Your task to perform on an android device: Show me the alarms in the clock app Image 0: 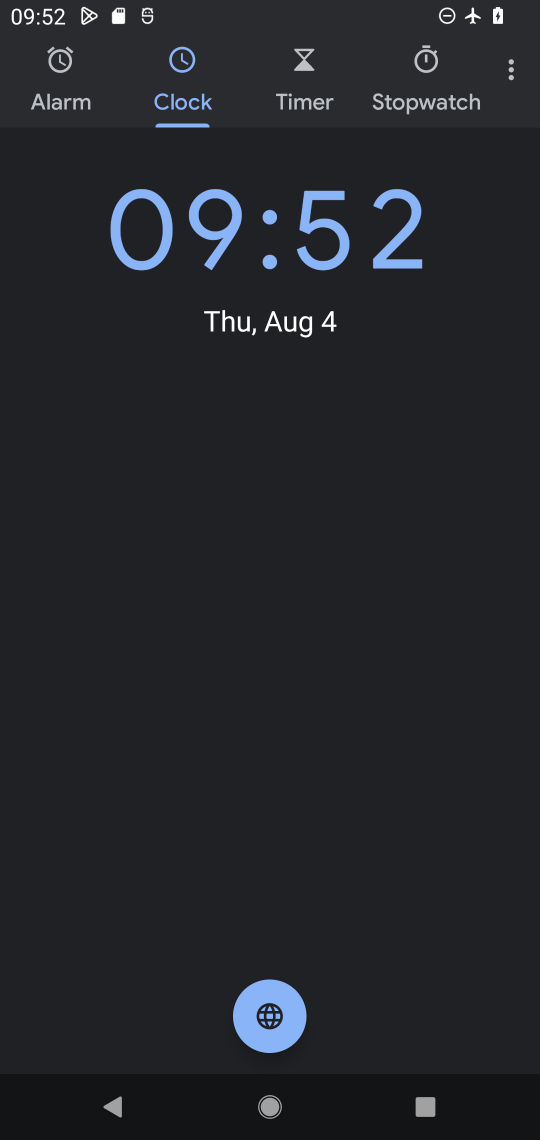
Step 0: click (64, 81)
Your task to perform on an android device: Show me the alarms in the clock app Image 1: 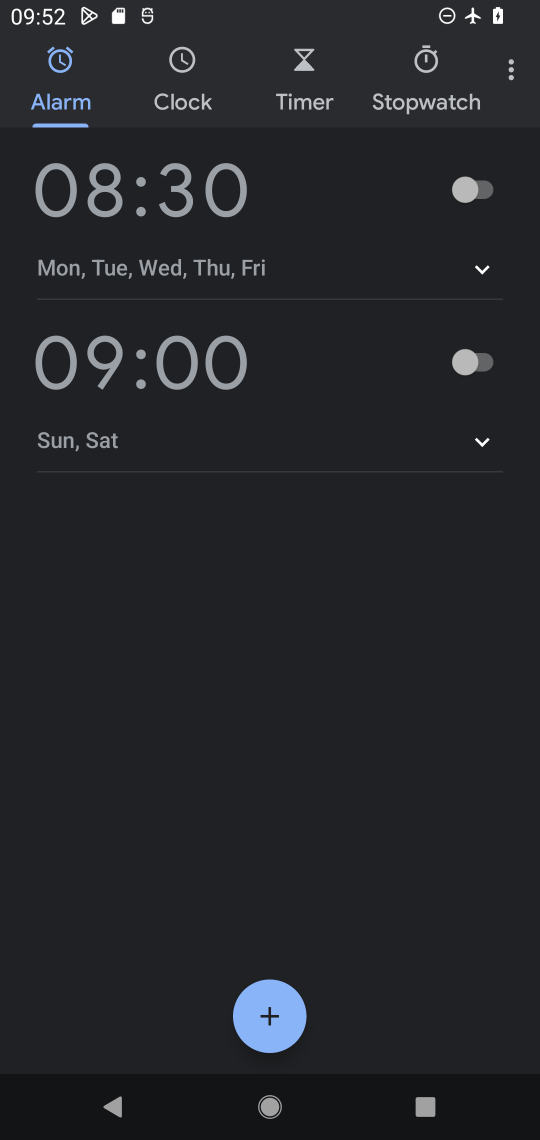
Step 1: task complete